Your task to perform on an android device: toggle notification dots Image 0: 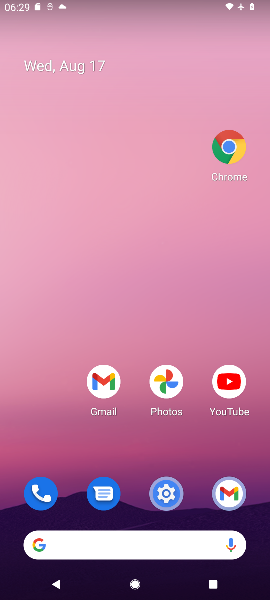
Step 0: click (174, 501)
Your task to perform on an android device: toggle notification dots Image 1: 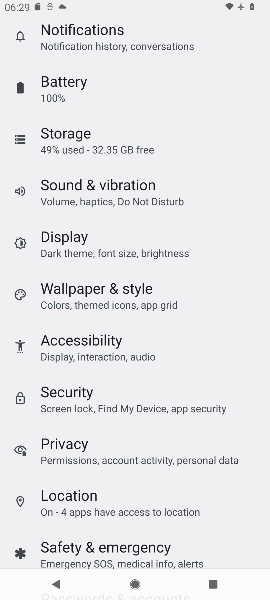
Step 1: click (87, 39)
Your task to perform on an android device: toggle notification dots Image 2: 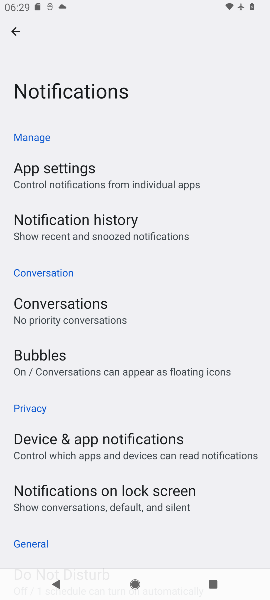
Step 2: drag from (239, 496) to (192, 140)
Your task to perform on an android device: toggle notification dots Image 3: 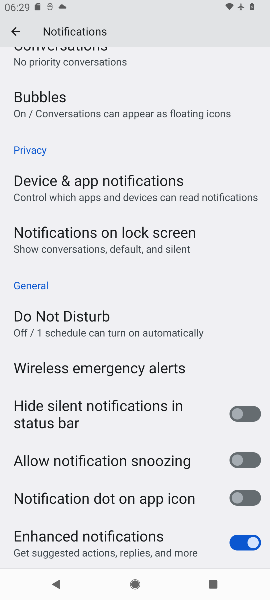
Step 3: drag from (201, 521) to (221, 207)
Your task to perform on an android device: toggle notification dots Image 4: 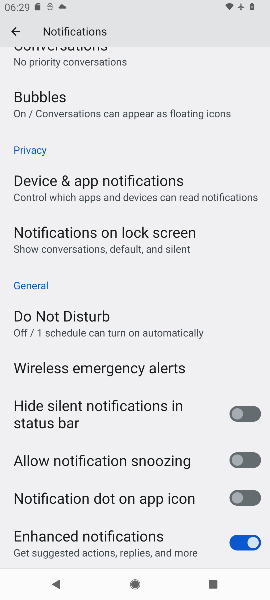
Step 4: click (235, 493)
Your task to perform on an android device: toggle notification dots Image 5: 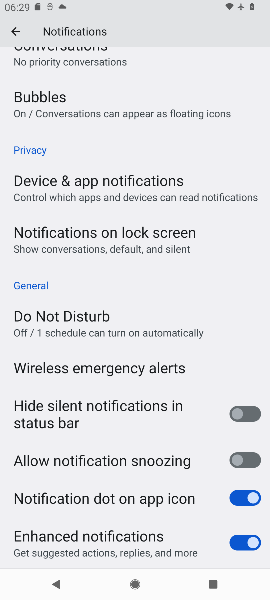
Step 5: task complete